Your task to perform on an android device: Add "razer huntsman" to the cart on costco.com Image 0: 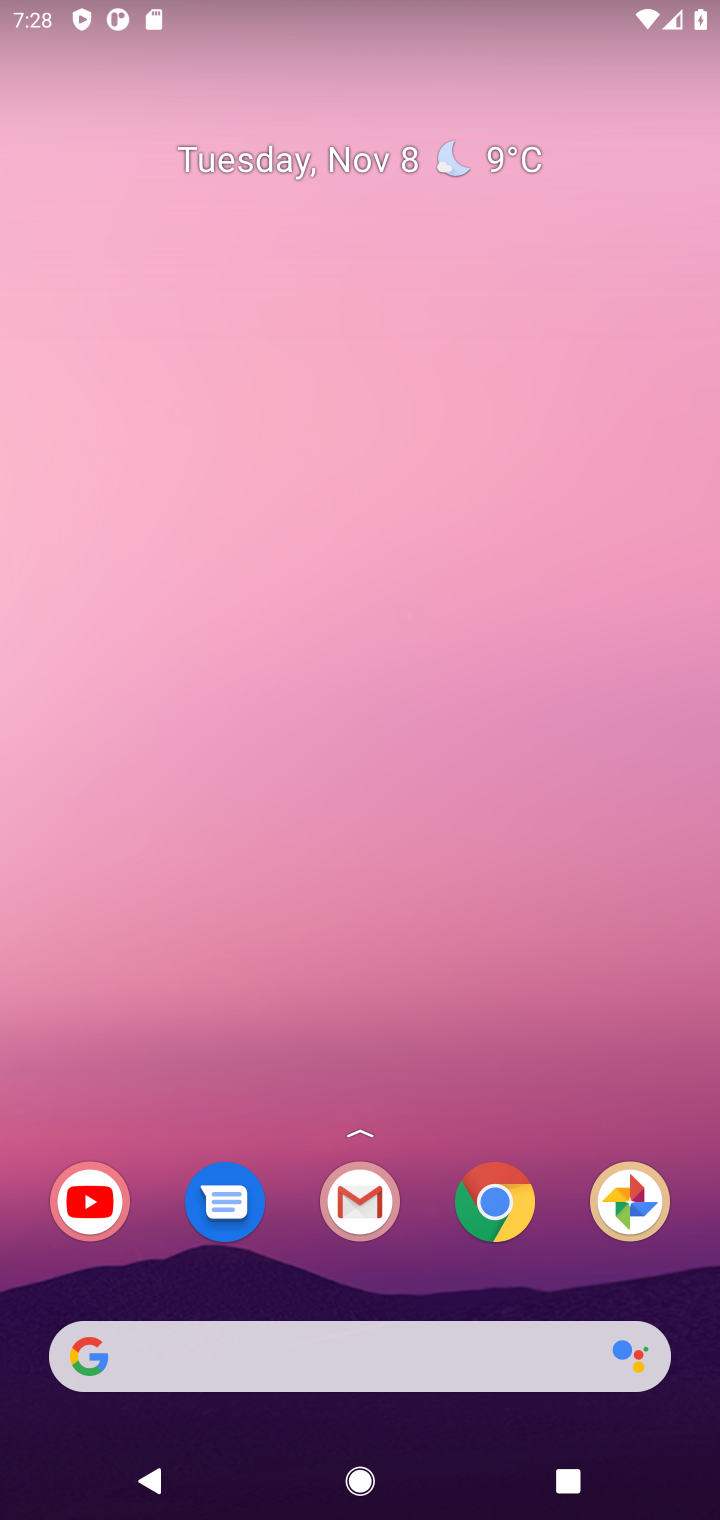
Step 0: click (250, 1342)
Your task to perform on an android device: Add "razer huntsman" to the cart on costco.com Image 1: 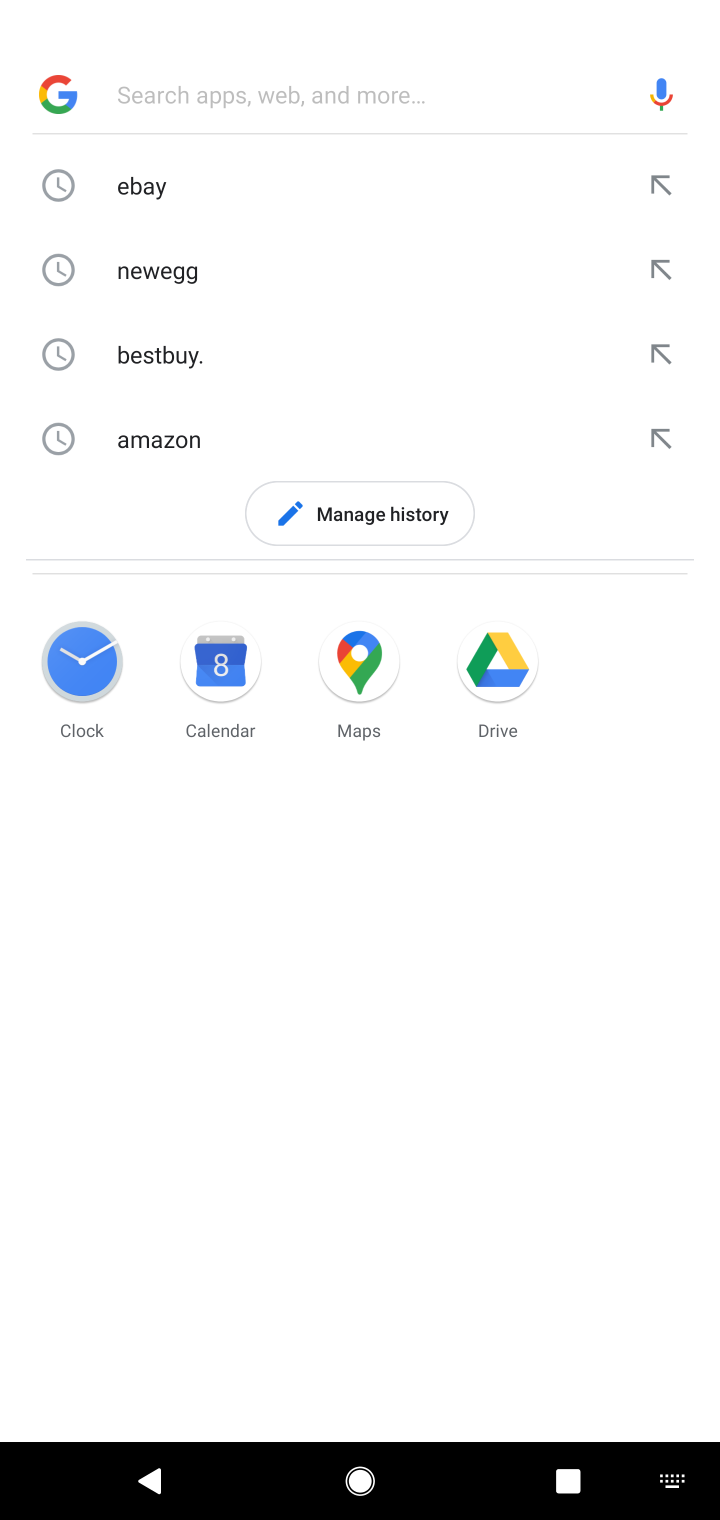
Step 1: type " costco.com"
Your task to perform on an android device: Add "razer huntsman" to the cart on costco.com Image 2: 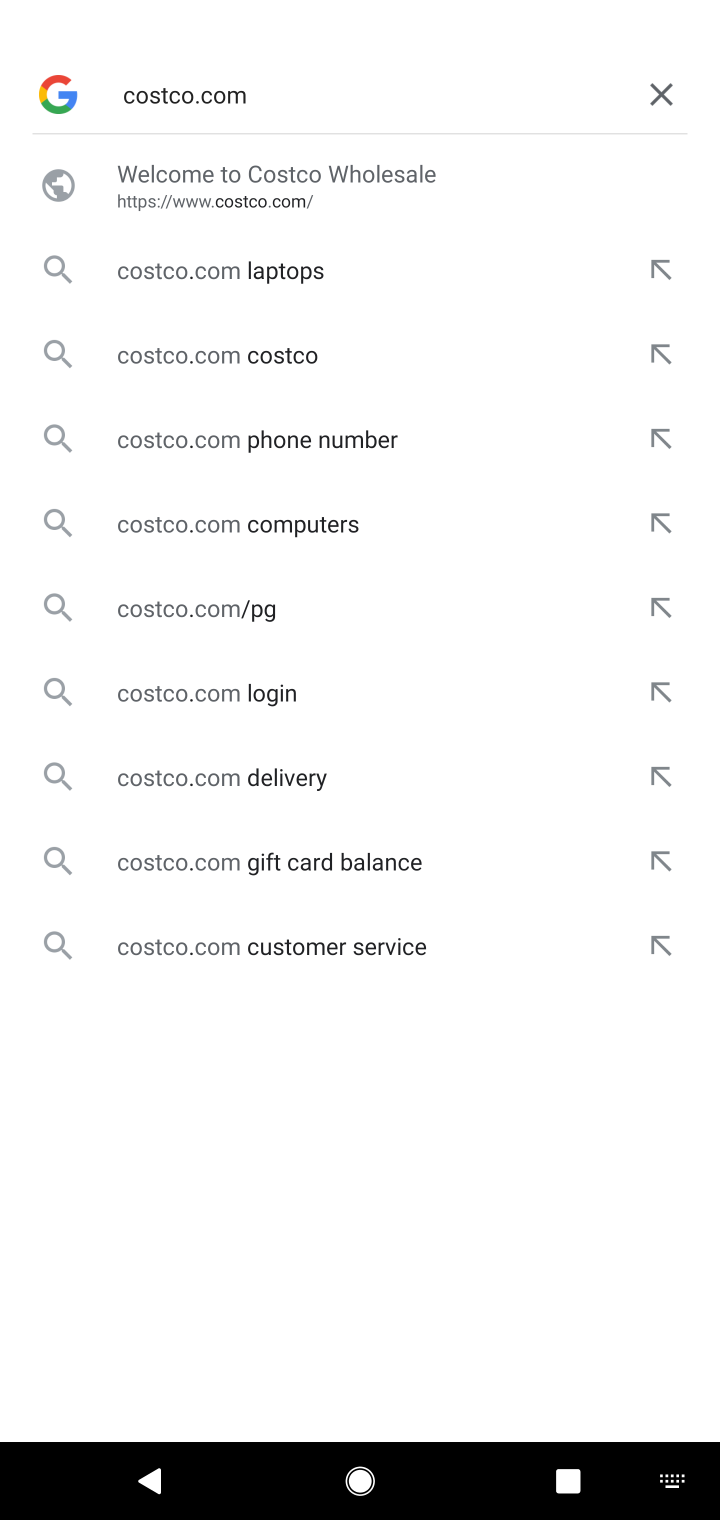
Step 2: type ""
Your task to perform on an android device: Add "razer huntsman" to the cart on costco.com Image 3: 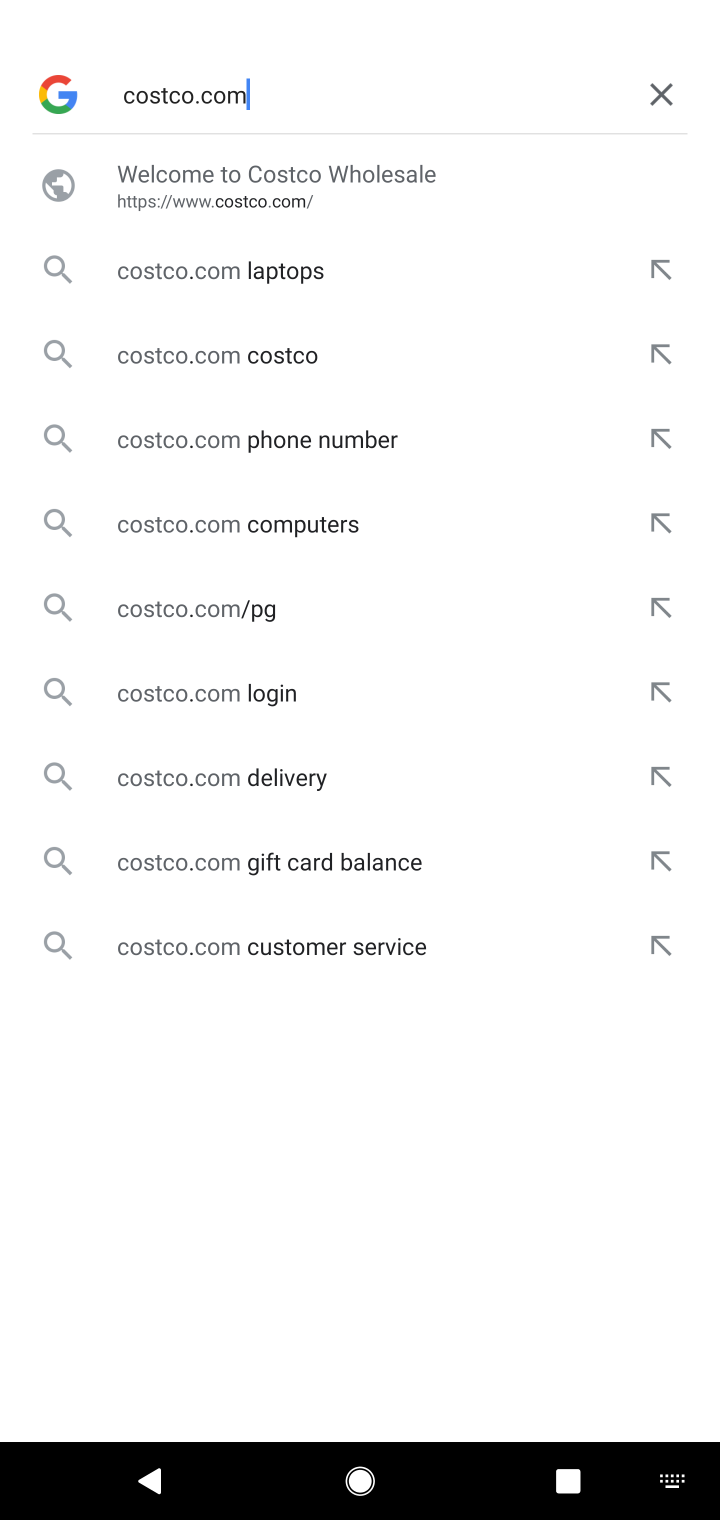
Step 3: press enter
Your task to perform on an android device: Add "razer huntsman" to the cart on costco.com Image 4: 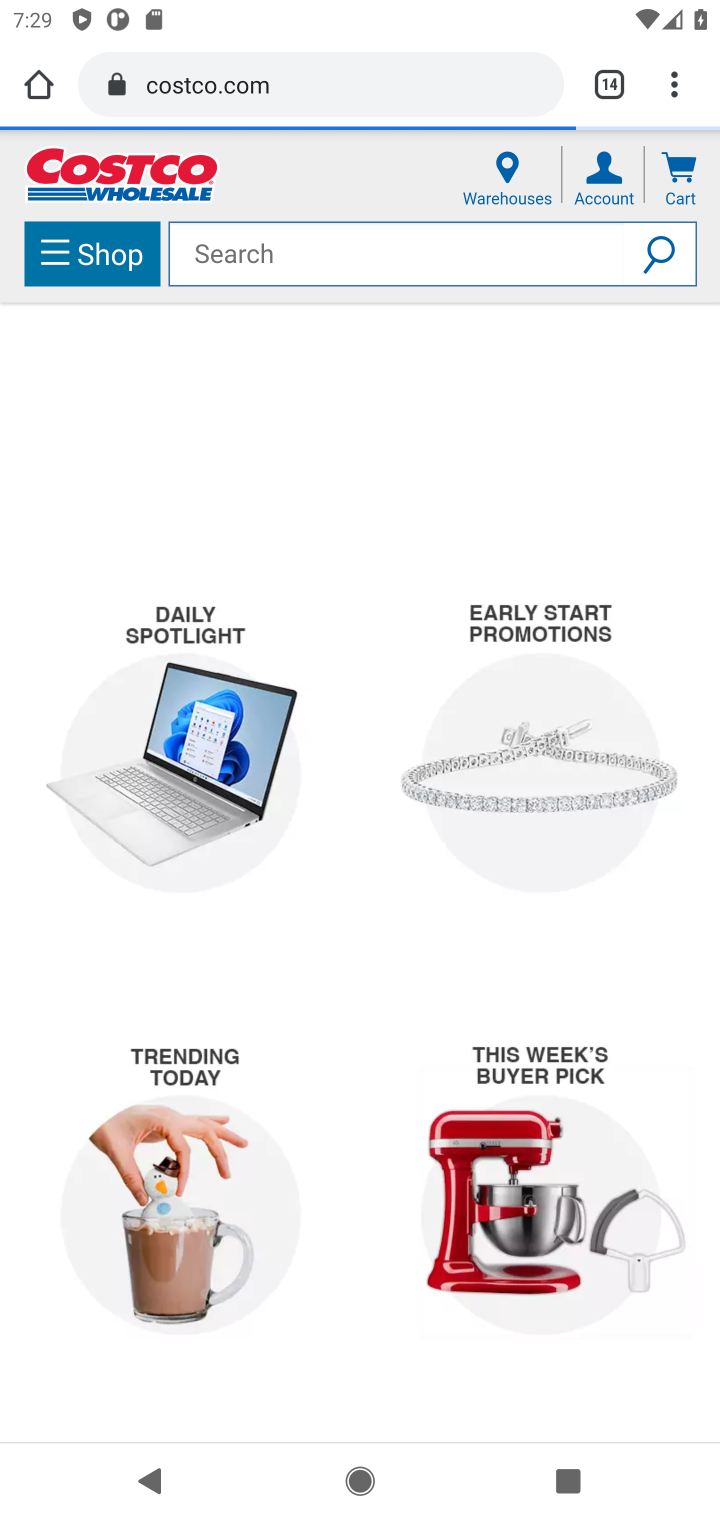
Step 4: click (332, 260)
Your task to perform on an android device: Add "razer huntsman" to the cart on costco.com Image 5: 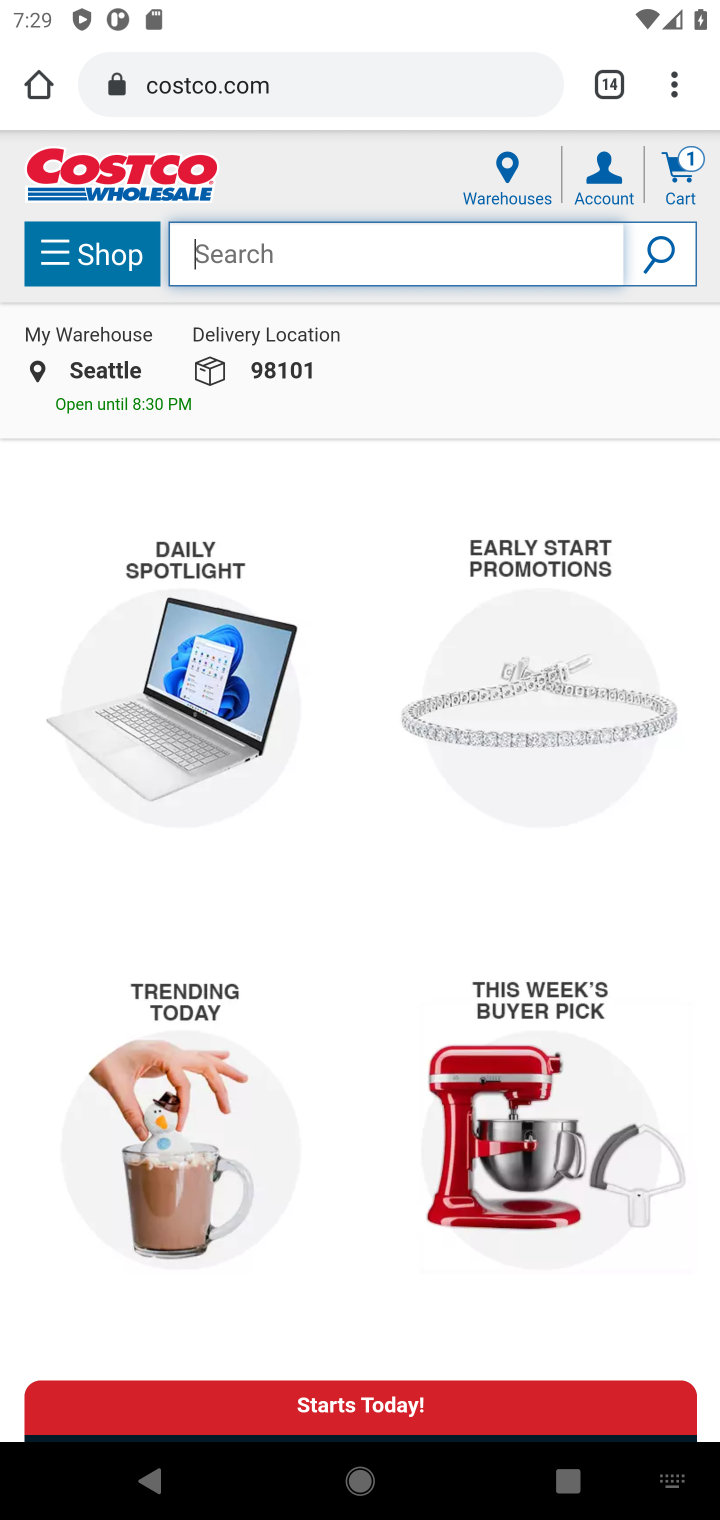
Step 5: type "razer huntsman"
Your task to perform on an android device: Add "razer huntsman" to the cart on costco.com Image 6: 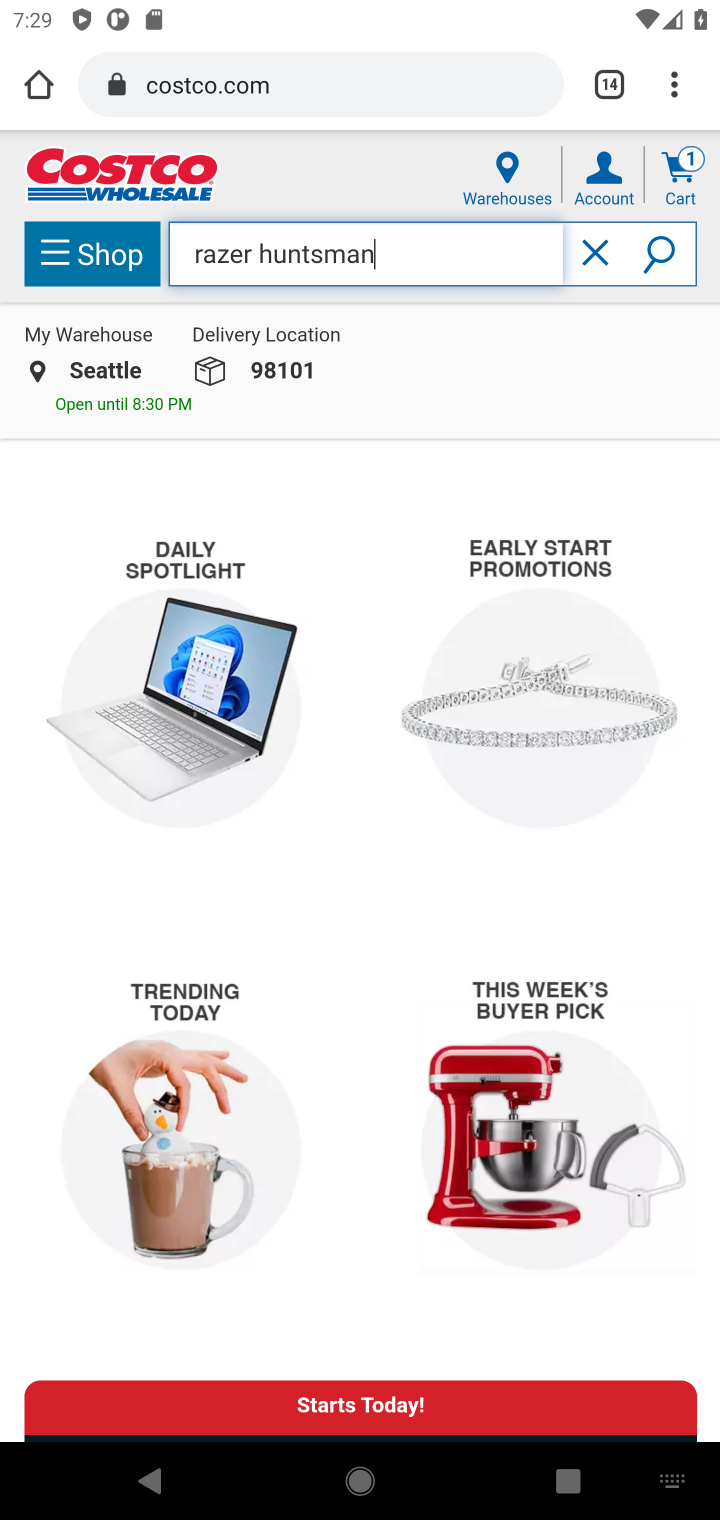
Step 6: type ""
Your task to perform on an android device: Add "razer huntsman" to the cart on costco.com Image 7: 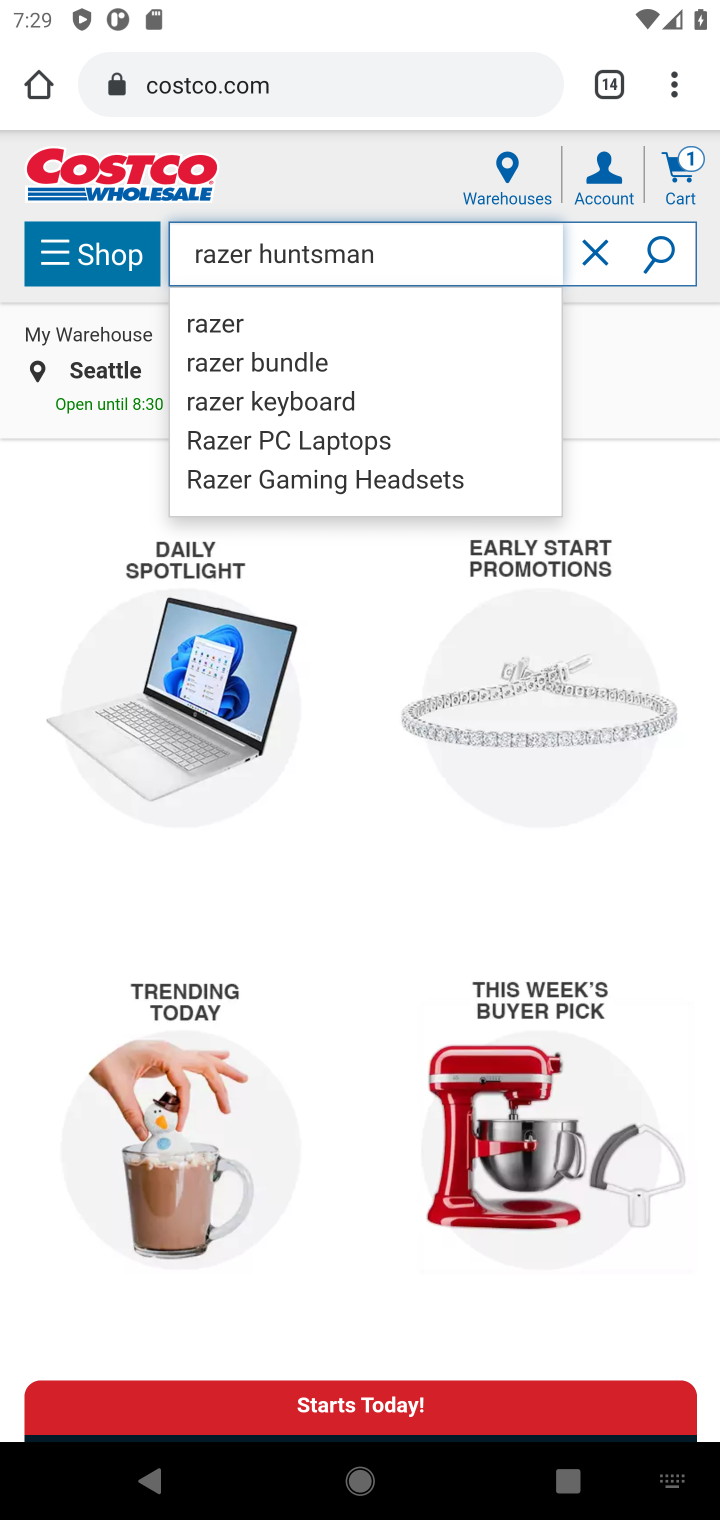
Step 7: press enter
Your task to perform on an android device: Add "razer huntsman" to the cart on costco.com Image 8: 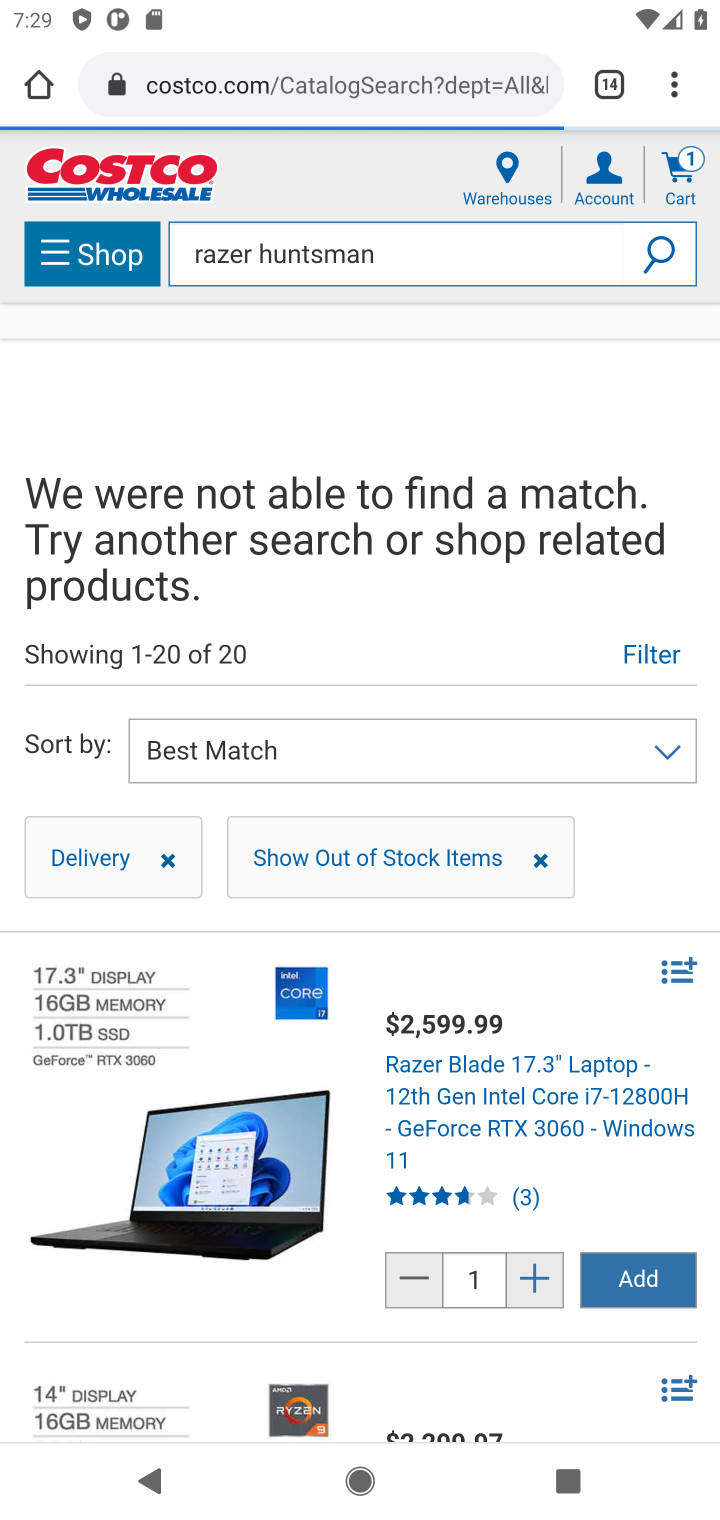
Step 8: click (651, 1291)
Your task to perform on an android device: Add "razer huntsman" to the cart on costco.com Image 9: 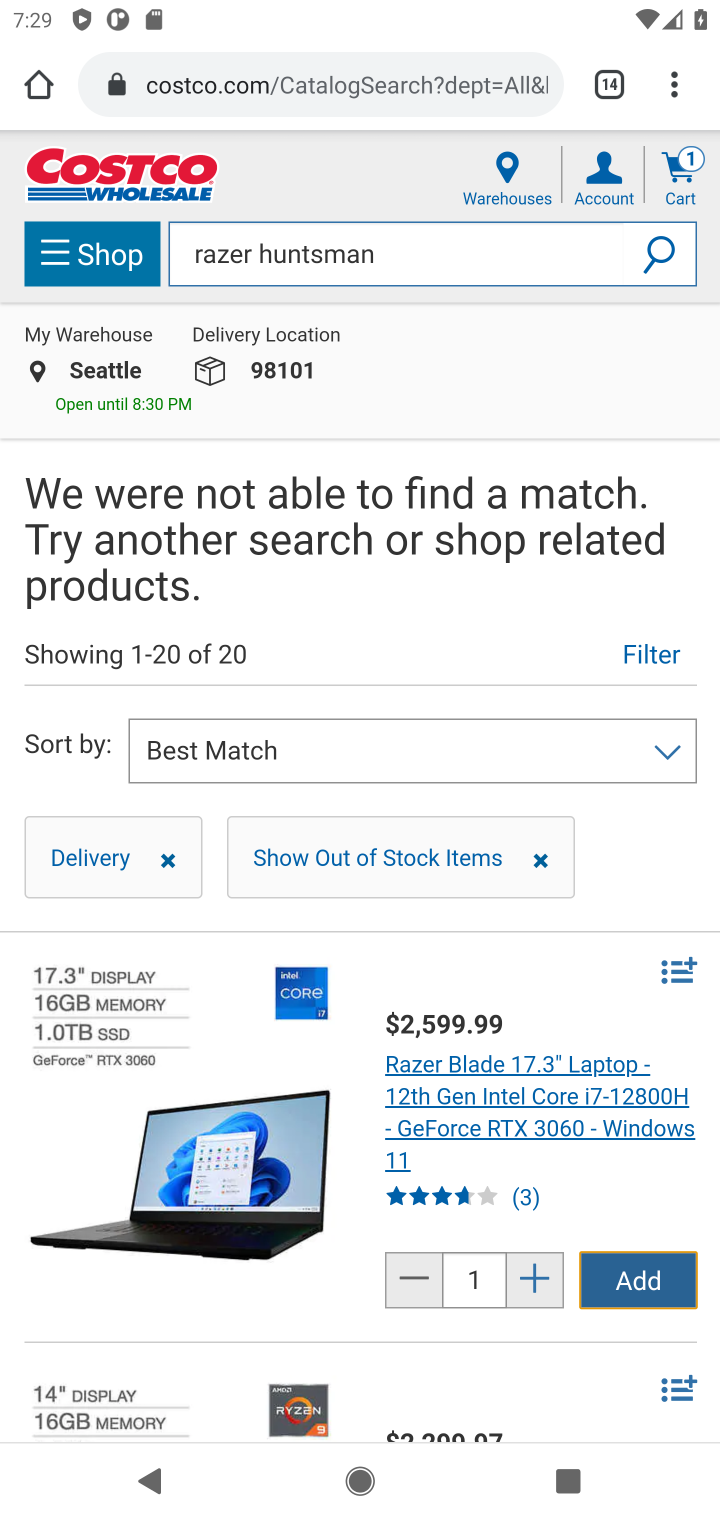
Step 9: click (651, 1291)
Your task to perform on an android device: Add "razer huntsman" to the cart on costco.com Image 10: 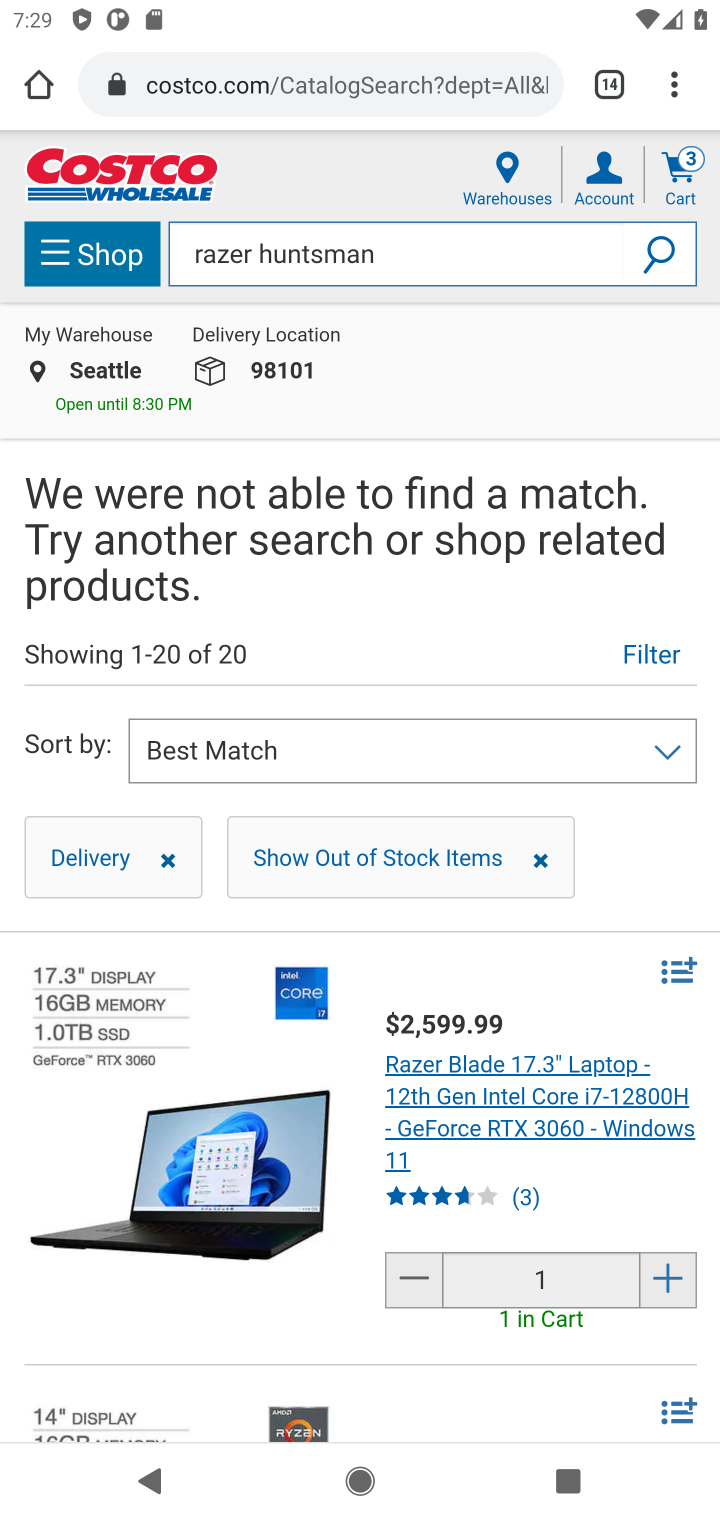
Step 10: task complete